Your task to perform on an android device: Show me popular videos on Youtube Image 0: 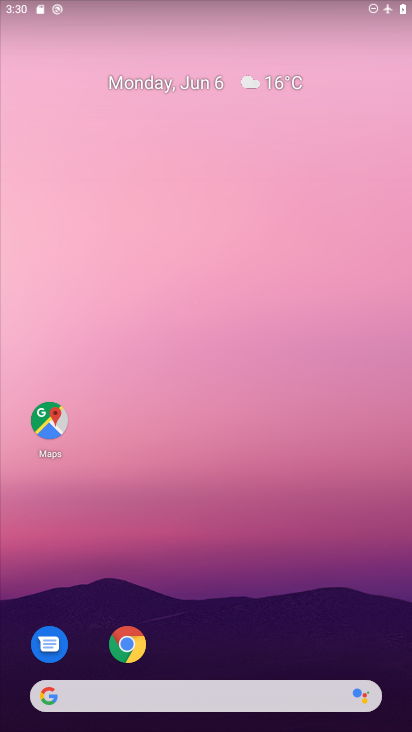
Step 0: drag from (267, 601) to (233, 44)
Your task to perform on an android device: Show me popular videos on Youtube Image 1: 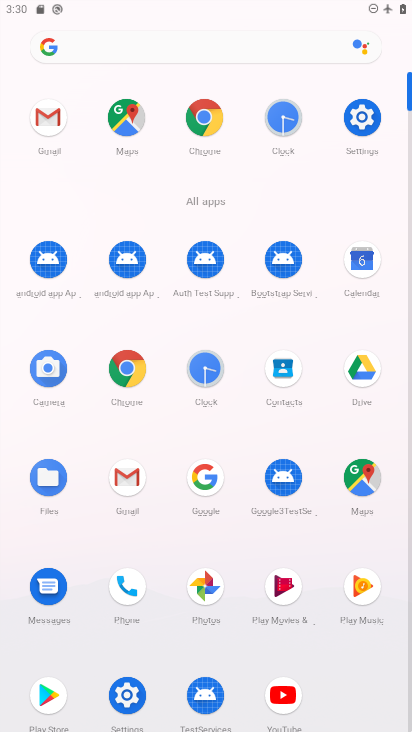
Step 1: click (285, 691)
Your task to perform on an android device: Show me popular videos on Youtube Image 2: 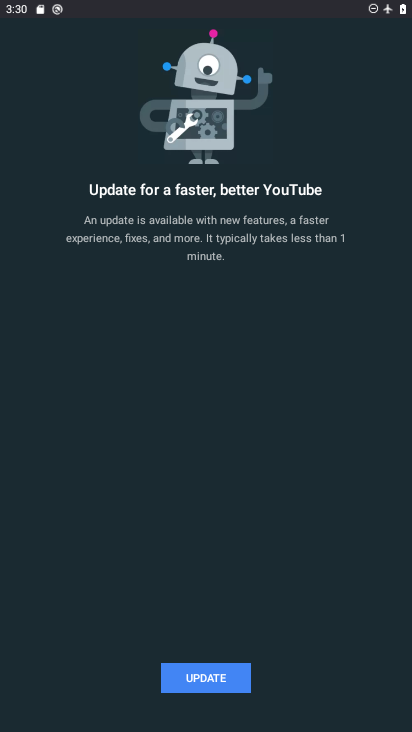
Step 2: click (204, 671)
Your task to perform on an android device: Show me popular videos on Youtube Image 3: 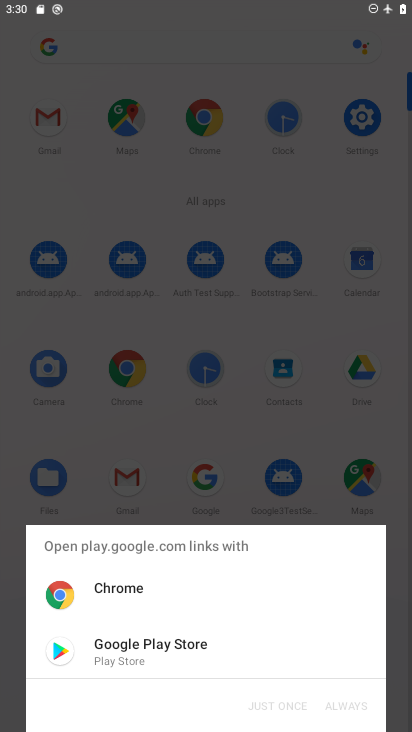
Step 3: click (146, 652)
Your task to perform on an android device: Show me popular videos on Youtube Image 4: 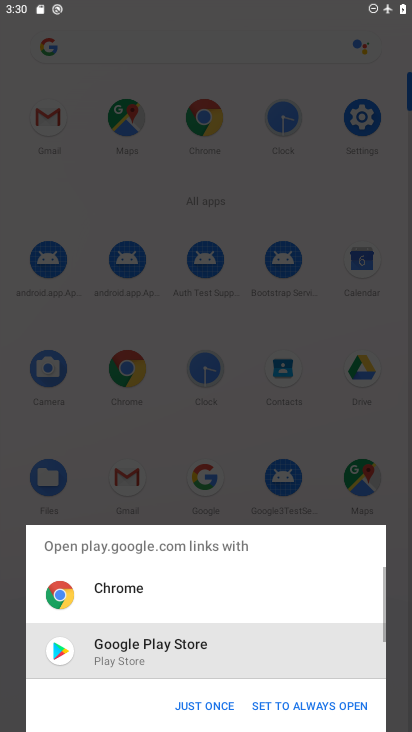
Step 4: click (181, 701)
Your task to perform on an android device: Show me popular videos on Youtube Image 5: 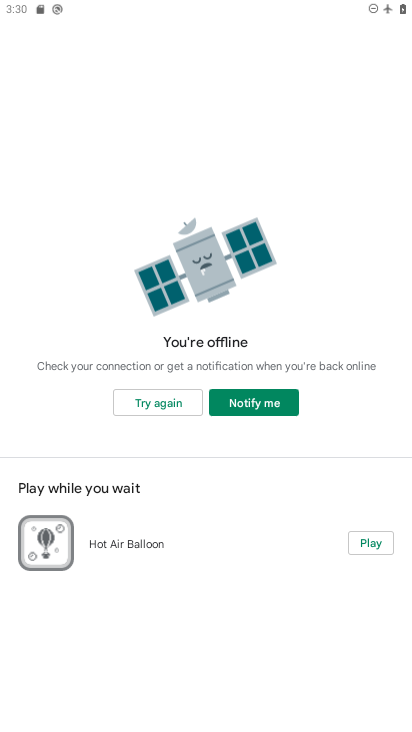
Step 5: task complete